Your task to perform on an android device: Go to Maps Image 0: 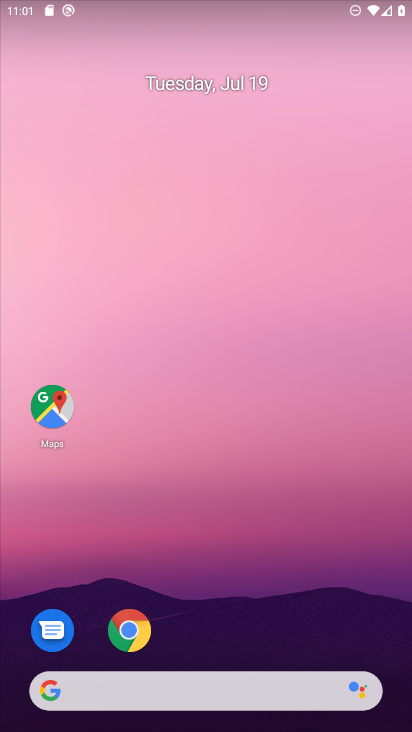
Step 0: click (63, 415)
Your task to perform on an android device: Go to Maps Image 1: 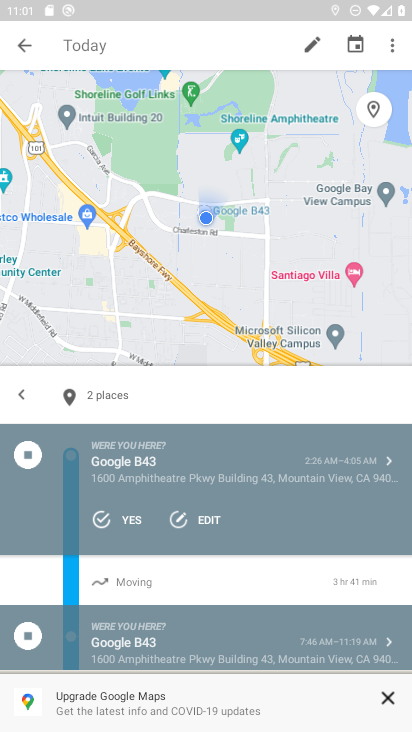
Step 1: task complete